Your task to perform on an android device: Show me productivity apps on the Play Store Image 0: 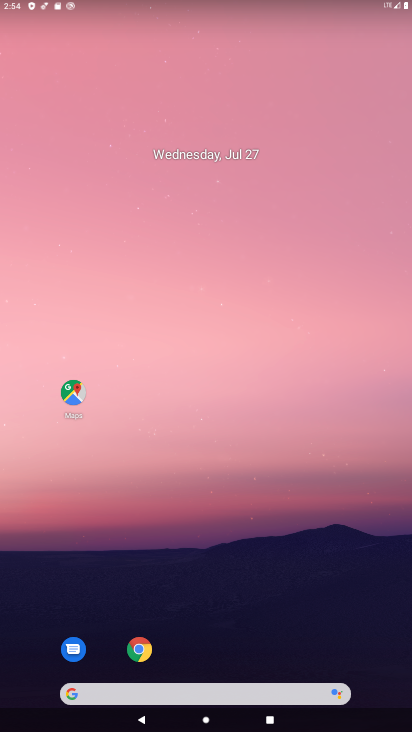
Step 0: drag from (268, 601) to (265, 156)
Your task to perform on an android device: Show me productivity apps on the Play Store Image 1: 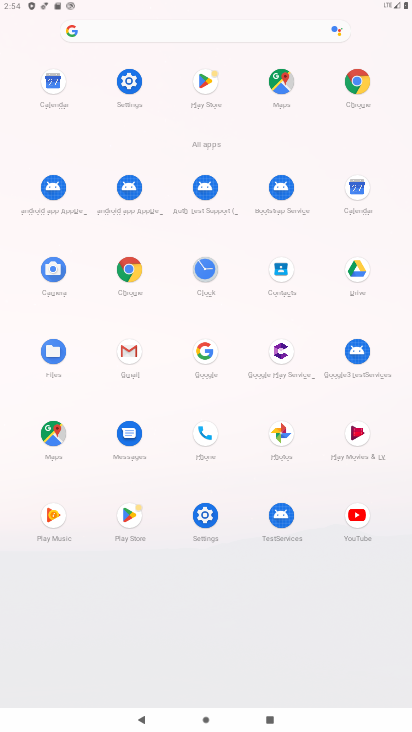
Step 1: click (133, 517)
Your task to perform on an android device: Show me productivity apps on the Play Store Image 2: 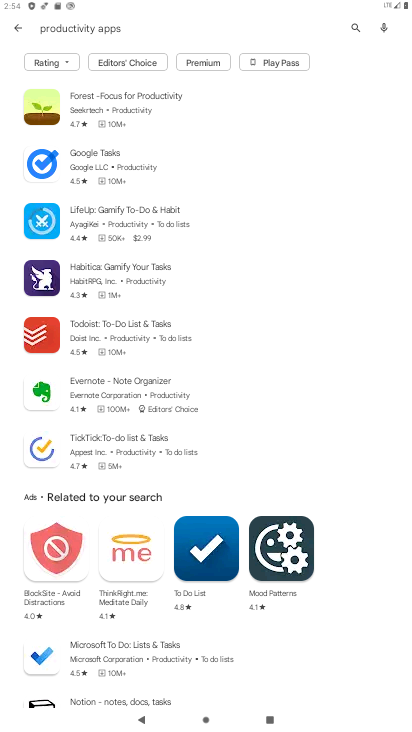
Step 2: press home button
Your task to perform on an android device: Show me productivity apps on the Play Store Image 3: 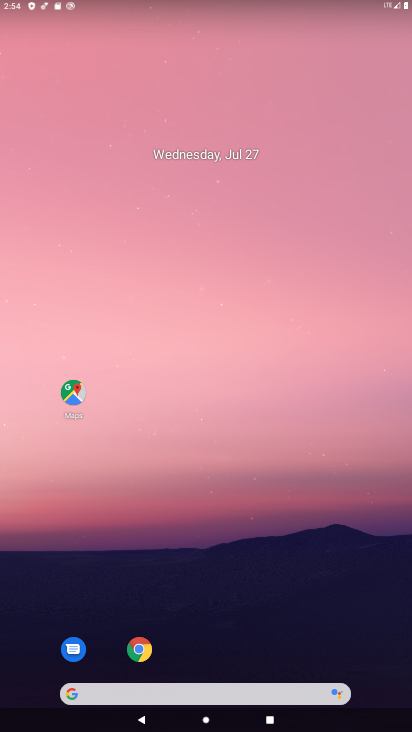
Step 3: drag from (234, 598) to (225, 81)
Your task to perform on an android device: Show me productivity apps on the Play Store Image 4: 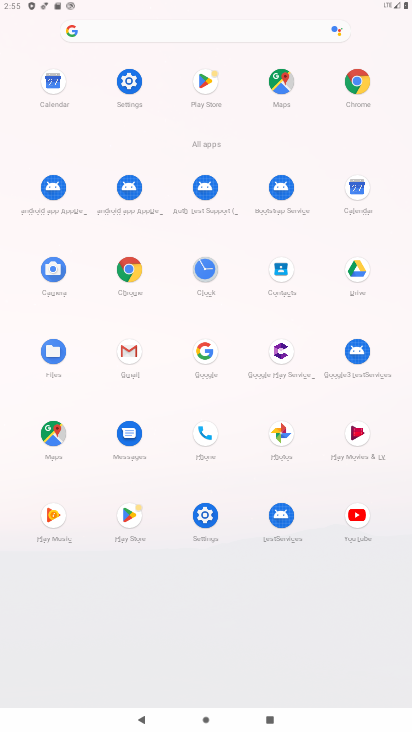
Step 4: click (130, 518)
Your task to perform on an android device: Show me productivity apps on the Play Store Image 5: 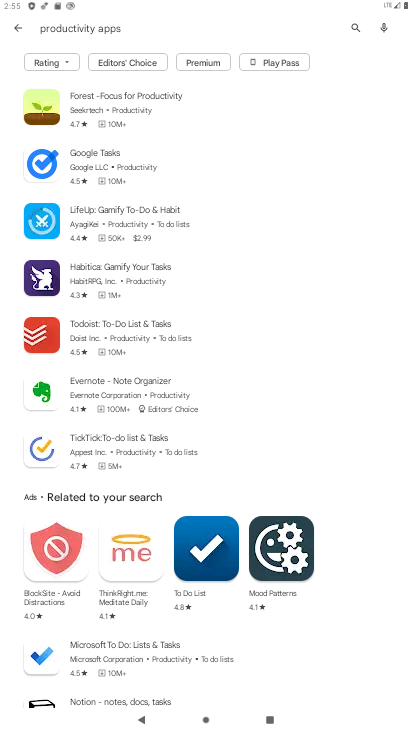
Step 5: task complete